Your task to perform on an android device: change the clock style Image 0: 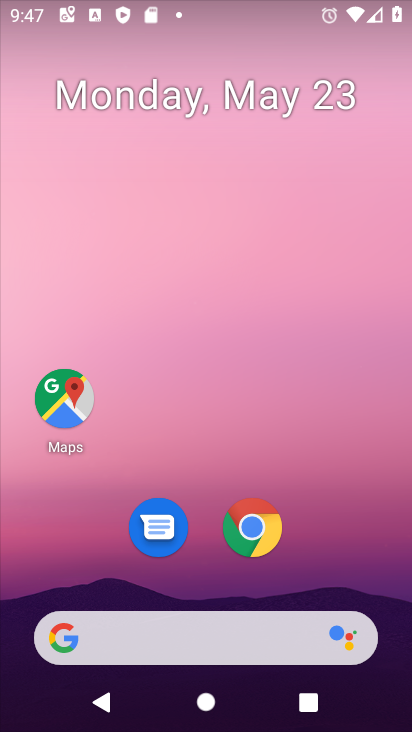
Step 0: drag from (337, 528) to (269, 3)
Your task to perform on an android device: change the clock style Image 1: 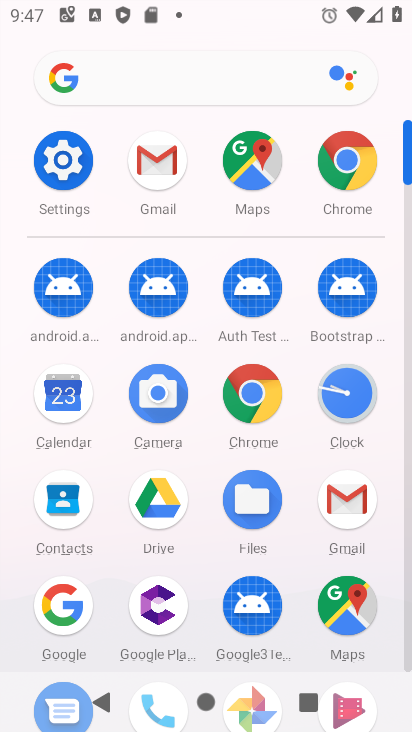
Step 1: drag from (2, 558) to (8, 194)
Your task to perform on an android device: change the clock style Image 2: 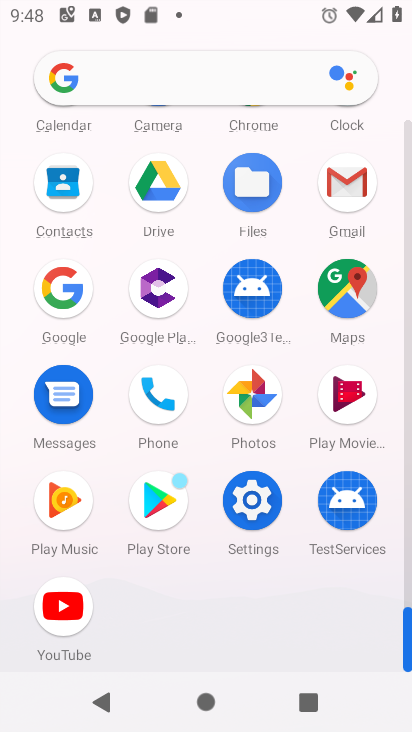
Step 2: drag from (15, 247) to (13, 597)
Your task to perform on an android device: change the clock style Image 3: 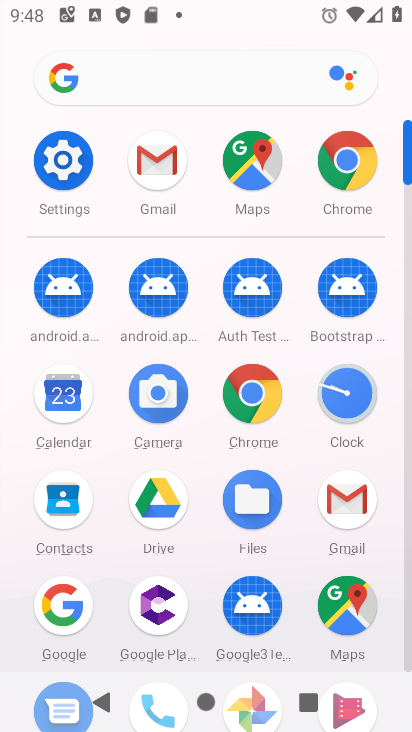
Step 3: click (346, 389)
Your task to perform on an android device: change the clock style Image 4: 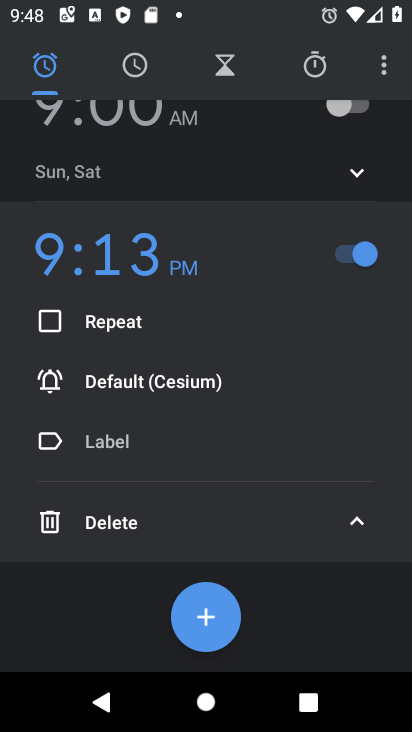
Step 4: drag from (379, 61) to (254, 121)
Your task to perform on an android device: change the clock style Image 5: 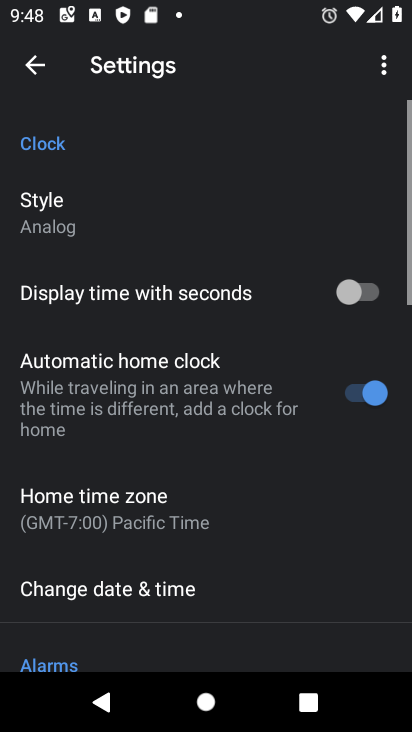
Step 5: click (139, 214)
Your task to perform on an android device: change the clock style Image 6: 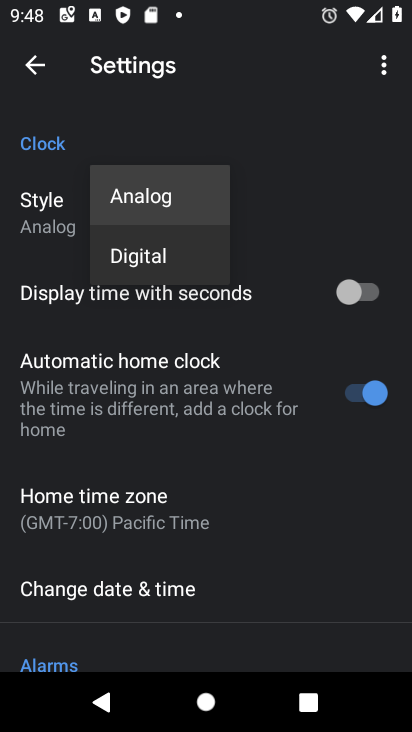
Step 6: click (143, 264)
Your task to perform on an android device: change the clock style Image 7: 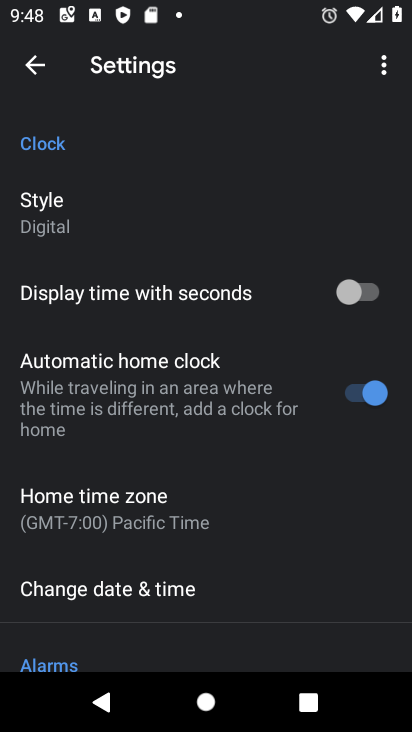
Step 7: task complete